Your task to perform on an android device: see sites visited before in the chrome app Image 0: 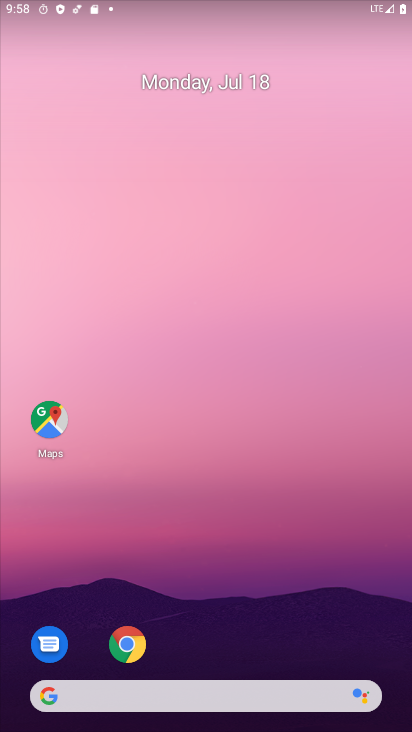
Step 0: press home button
Your task to perform on an android device: see sites visited before in the chrome app Image 1: 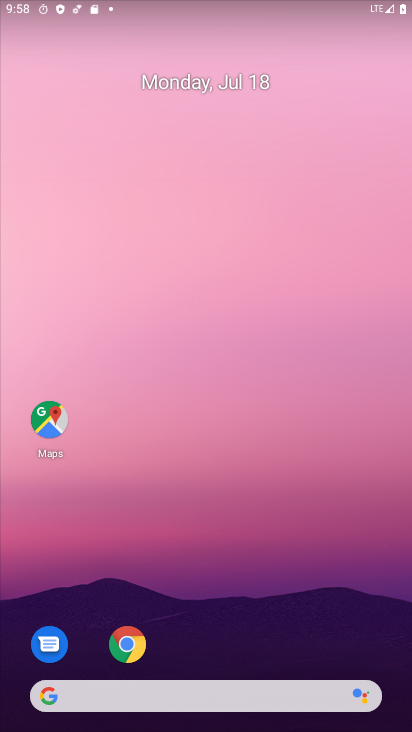
Step 1: click (123, 640)
Your task to perform on an android device: see sites visited before in the chrome app Image 2: 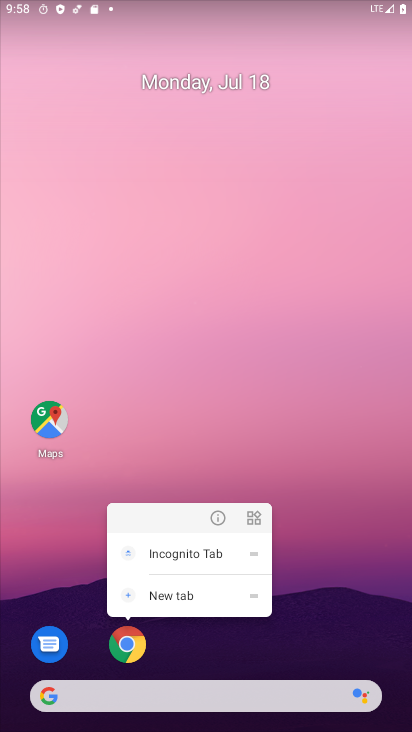
Step 2: click (126, 644)
Your task to perform on an android device: see sites visited before in the chrome app Image 3: 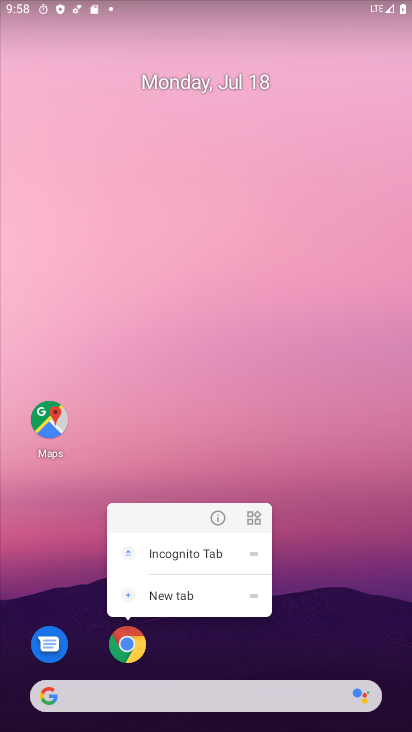
Step 3: click (126, 644)
Your task to perform on an android device: see sites visited before in the chrome app Image 4: 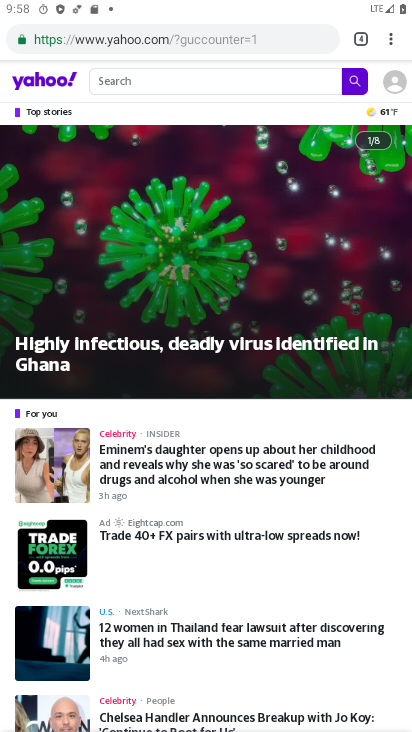
Step 4: click (389, 38)
Your task to perform on an android device: see sites visited before in the chrome app Image 5: 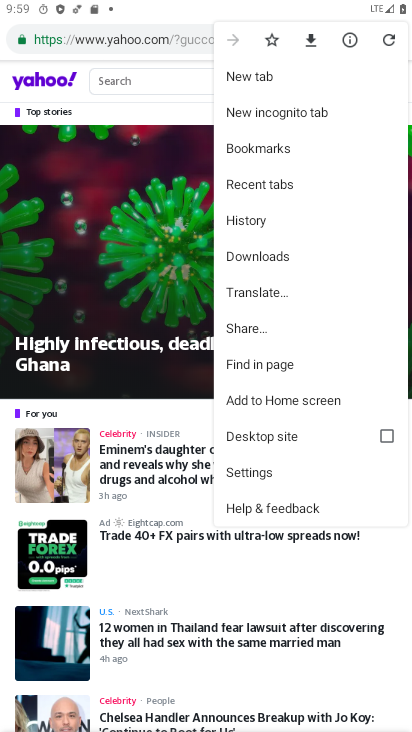
Step 5: click (276, 221)
Your task to perform on an android device: see sites visited before in the chrome app Image 6: 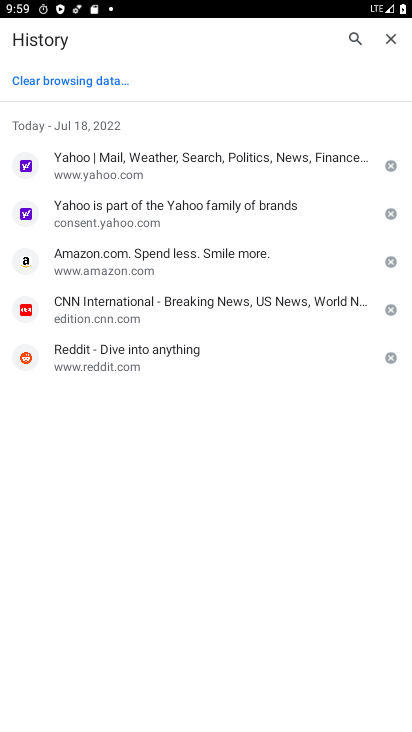
Step 6: task complete